Your task to perform on an android device: turn off location Image 0: 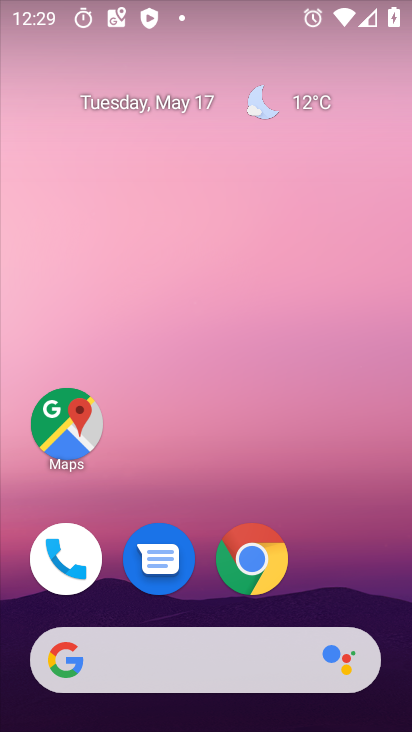
Step 0: drag from (352, 540) to (340, 7)
Your task to perform on an android device: turn off location Image 1: 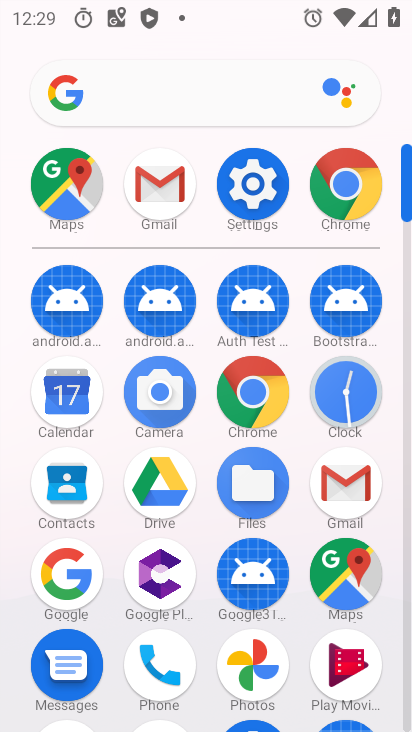
Step 1: click (265, 184)
Your task to perform on an android device: turn off location Image 2: 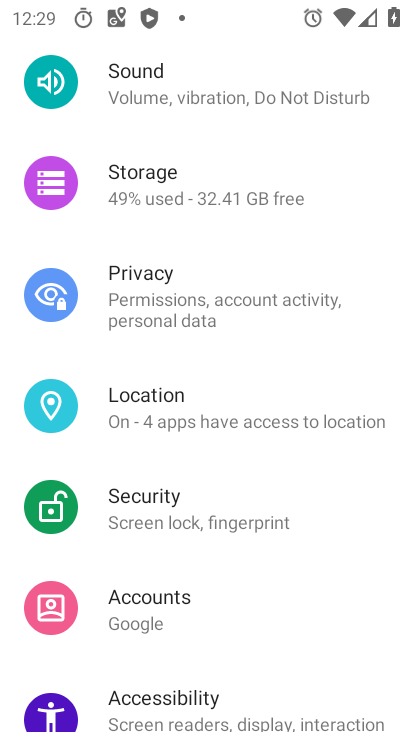
Step 2: click (183, 415)
Your task to perform on an android device: turn off location Image 3: 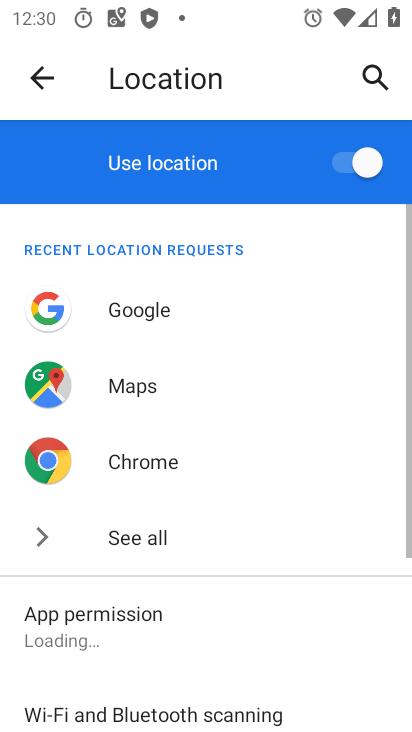
Step 3: click (340, 164)
Your task to perform on an android device: turn off location Image 4: 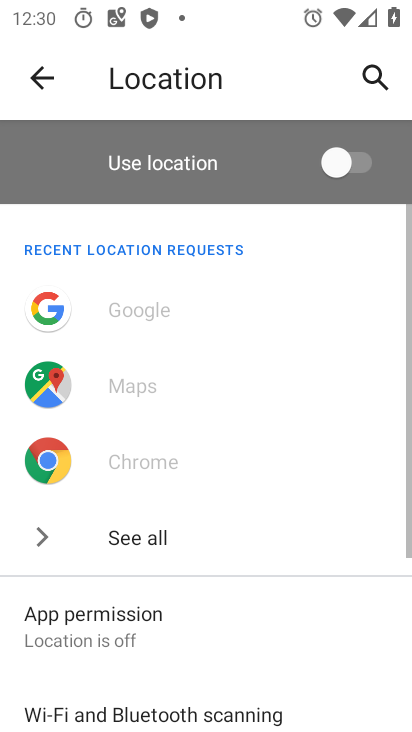
Step 4: task complete